Your task to perform on an android device: refresh tabs in the chrome app Image 0: 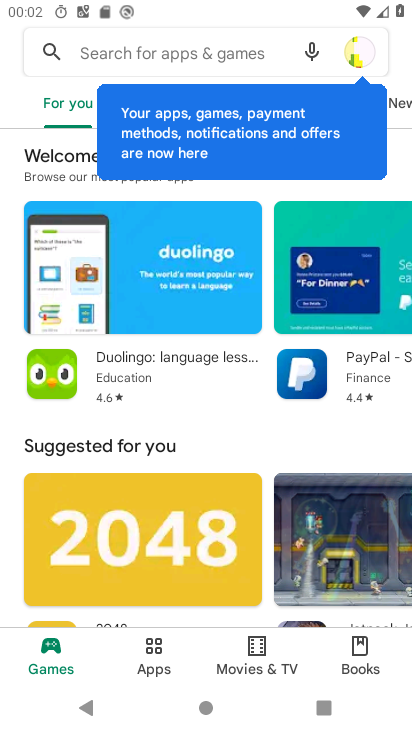
Step 0: press home button
Your task to perform on an android device: refresh tabs in the chrome app Image 1: 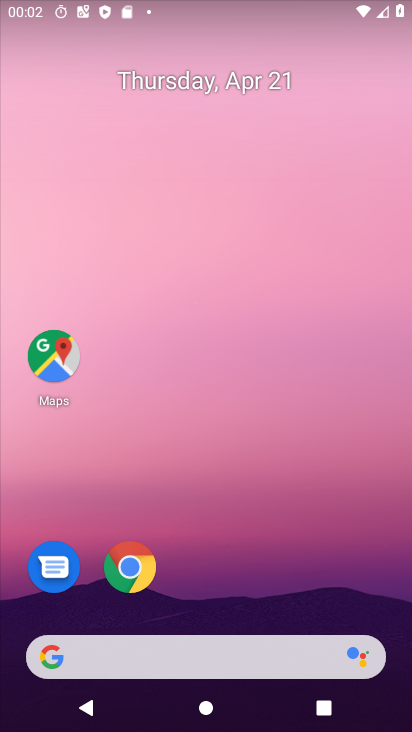
Step 1: drag from (243, 374) to (249, 247)
Your task to perform on an android device: refresh tabs in the chrome app Image 2: 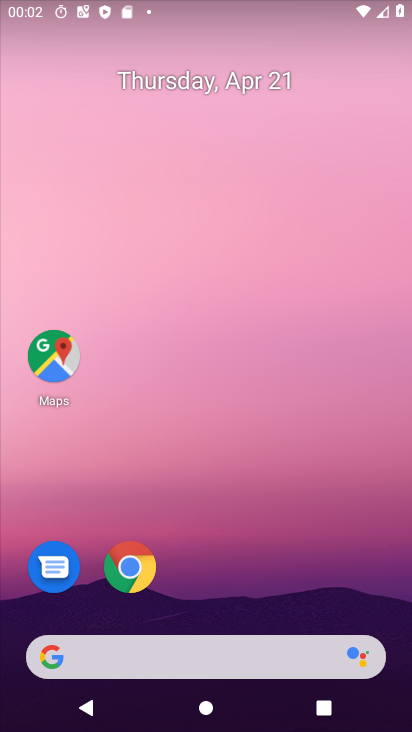
Step 2: drag from (189, 587) to (224, 132)
Your task to perform on an android device: refresh tabs in the chrome app Image 3: 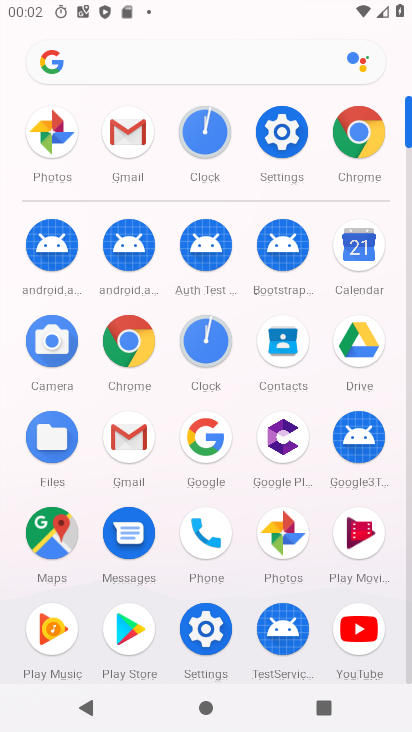
Step 3: click (138, 336)
Your task to perform on an android device: refresh tabs in the chrome app Image 4: 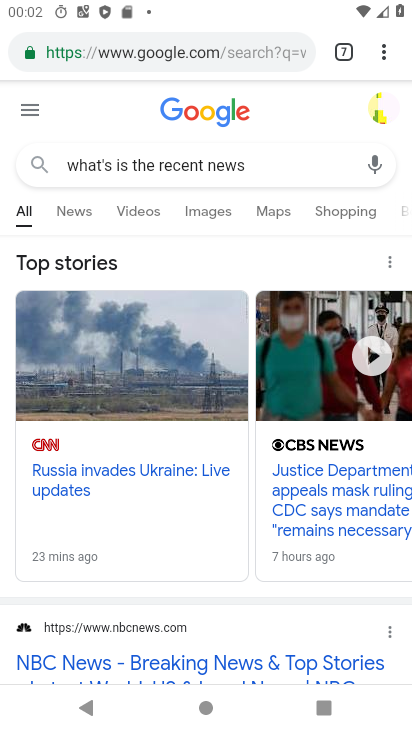
Step 4: click (373, 49)
Your task to perform on an android device: refresh tabs in the chrome app Image 5: 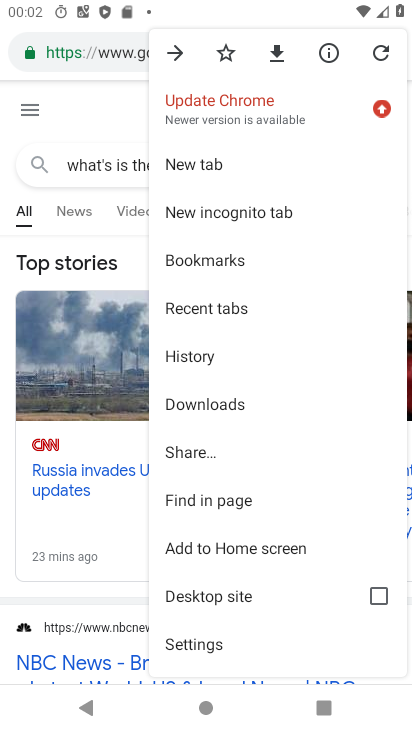
Step 5: click (386, 54)
Your task to perform on an android device: refresh tabs in the chrome app Image 6: 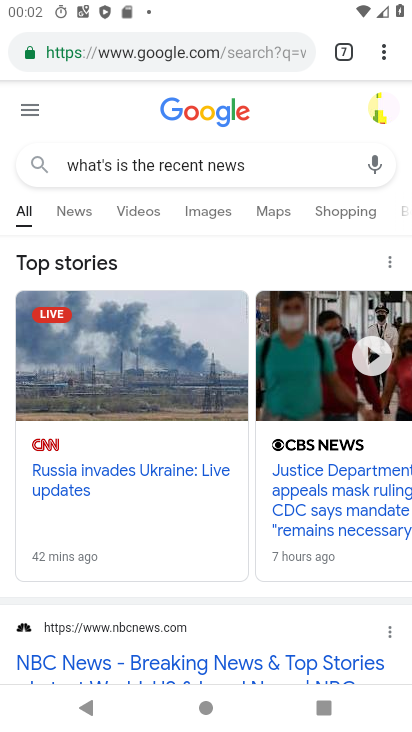
Step 6: click (386, 54)
Your task to perform on an android device: refresh tabs in the chrome app Image 7: 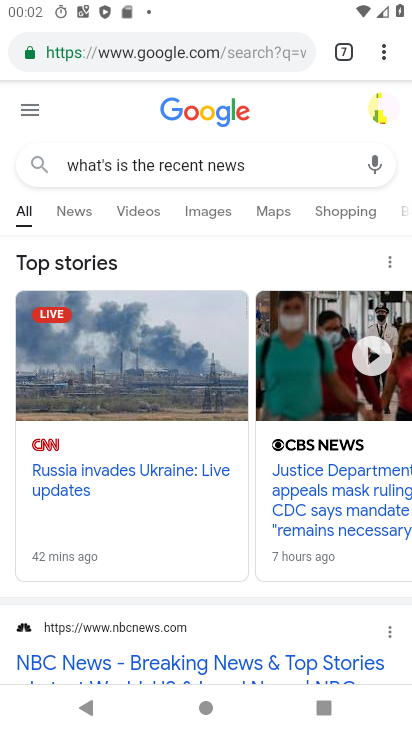
Step 7: click (365, 58)
Your task to perform on an android device: refresh tabs in the chrome app Image 8: 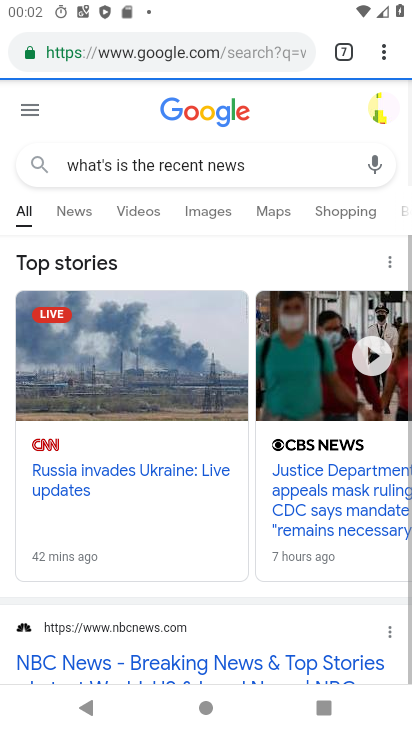
Step 8: click (365, 57)
Your task to perform on an android device: refresh tabs in the chrome app Image 9: 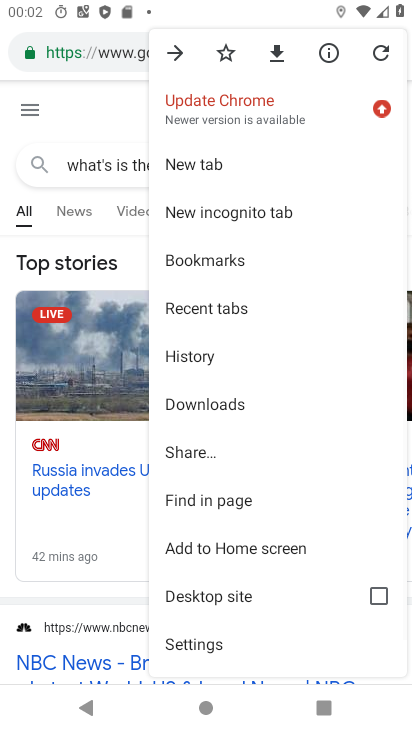
Step 9: click (381, 48)
Your task to perform on an android device: refresh tabs in the chrome app Image 10: 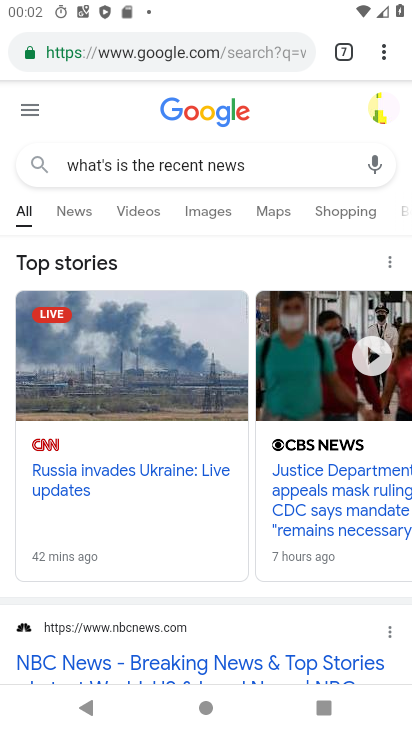
Step 10: task complete